Your task to perform on an android device: Go to wifi settings Image 0: 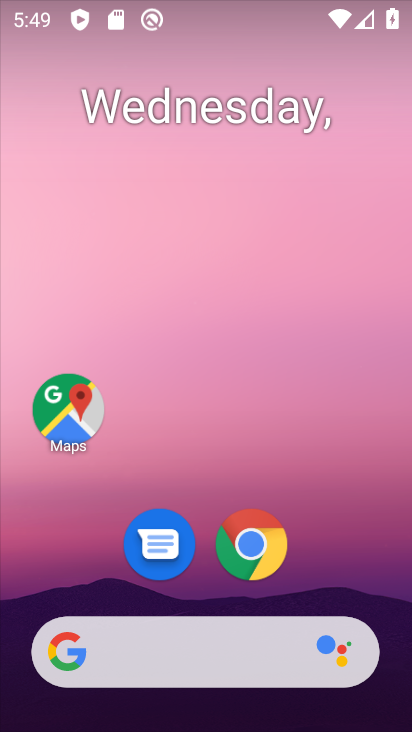
Step 0: drag from (338, 470) to (298, 66)
Your task to perform on an android device: Go to wifi settings Image 1: 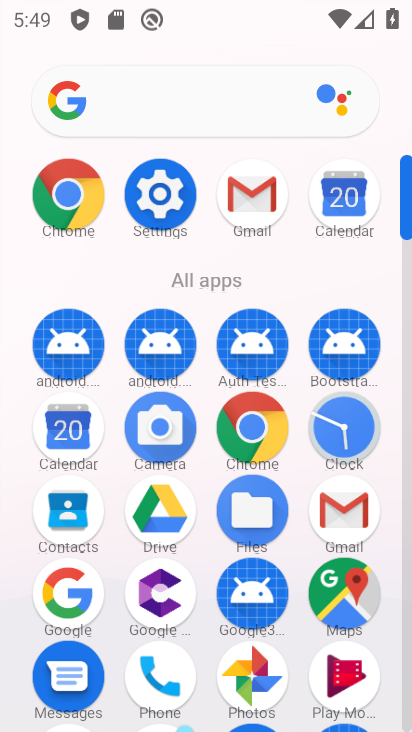
Step 1: click (154, 196)
Your task to perform on an android device: Go to wifi settings Image 2: 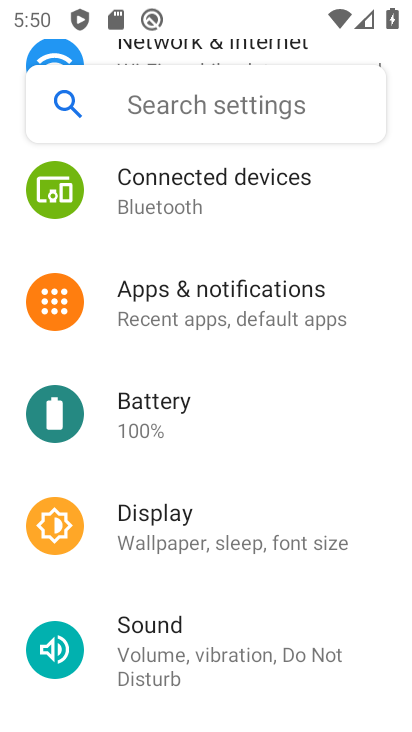
Step 2: drag from (248, 236) to (236, 577)
Your task to perform on an android device: Go to wifi settings Image 3: 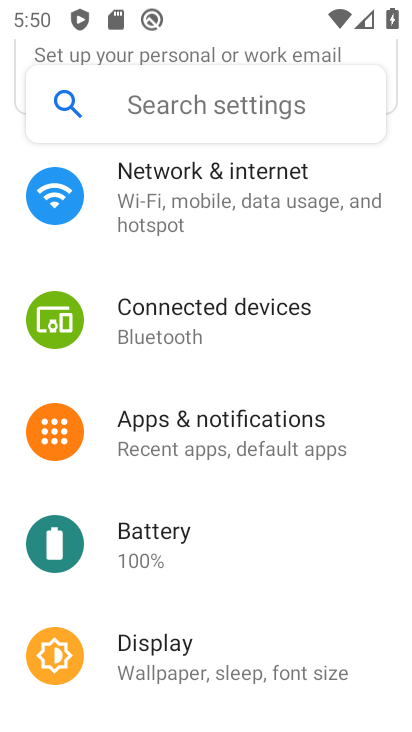
Step 3: click (202, 212)
Your task to perform on an android device: Go to wifi settings Image 4: 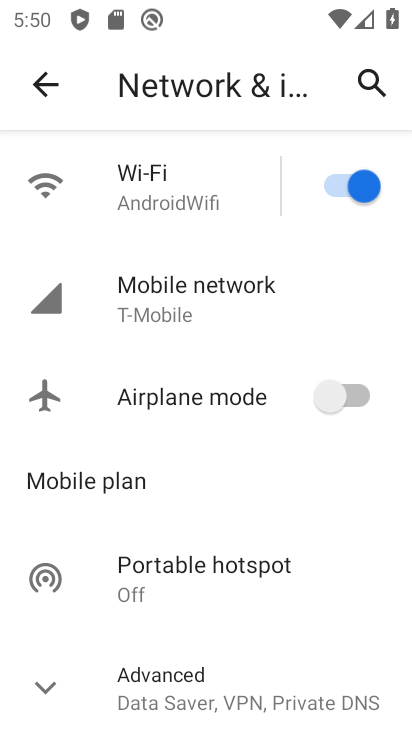
Step 4: click (186, 194)
Your task to perform on an android device: Go to wifi settings Image 5: 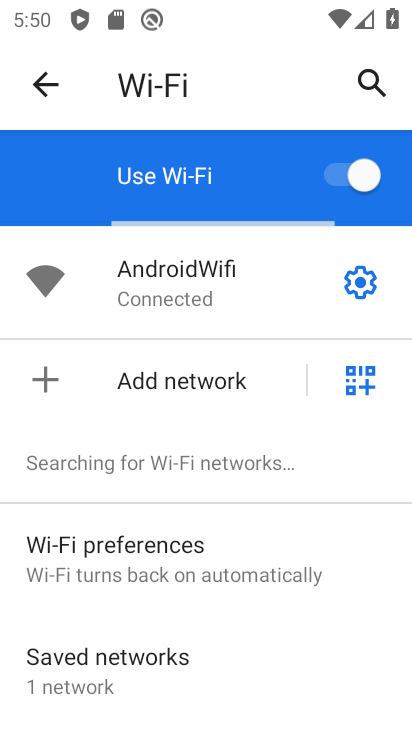
Step 5: task complete